Your task to perform on an android device: Turn off the flashlight Image 0: 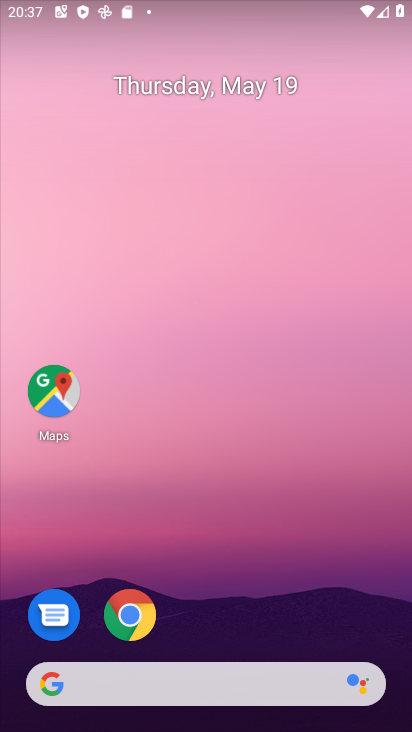
Step 0: drag from (253, 592) to (285, 81)
Your task to perform on an android device: Turn off the flashlight Image 1: 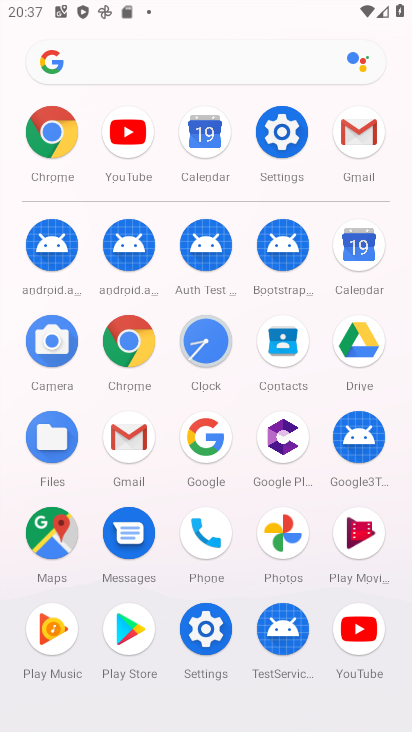
Step 1: click (284, 143)
Your task to perform on an android device: Turn off the flashlight Image 2: 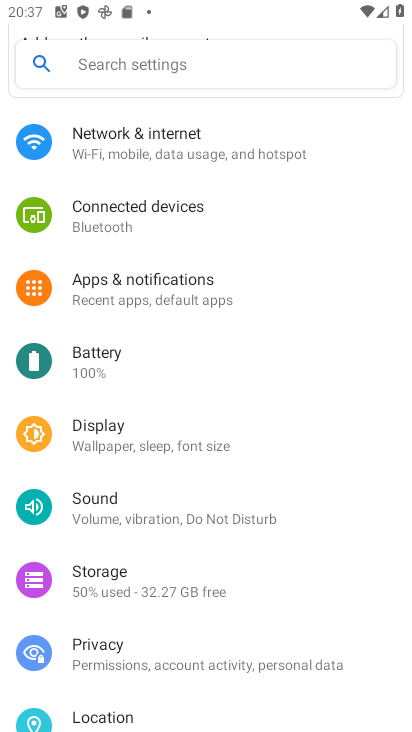
Step 2: click (179, 69)
Your task to perform on an android device: Turn off the flashlight Image 3: 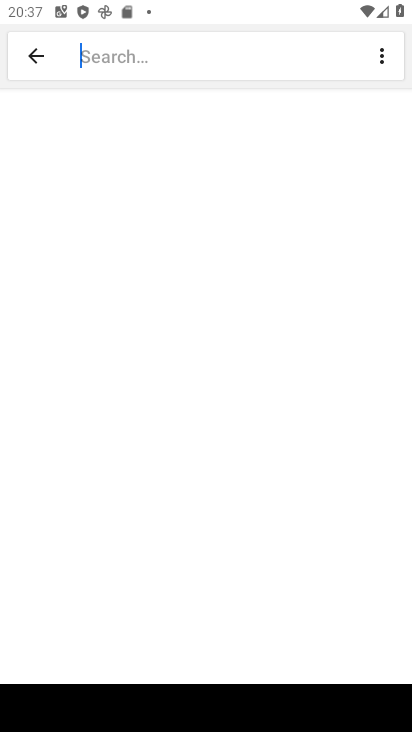
Step 3: type "flash"
Your task to perform on an android device: Turn off the flashlight Image 4: 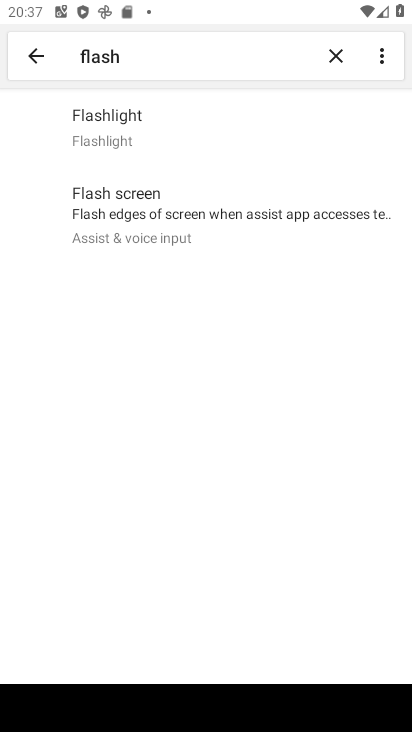
Step 4: task complete